Your task to perform on an android device: Open Google Maps Image 0: 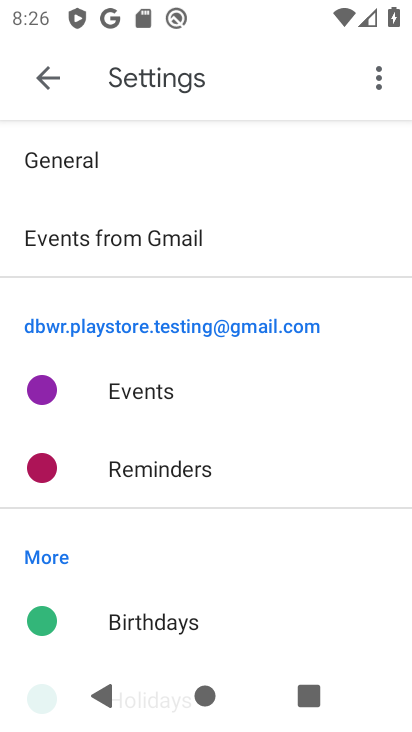
Step 0: press back button
Your task to perform on an android device: Open Google Maps Image 1: 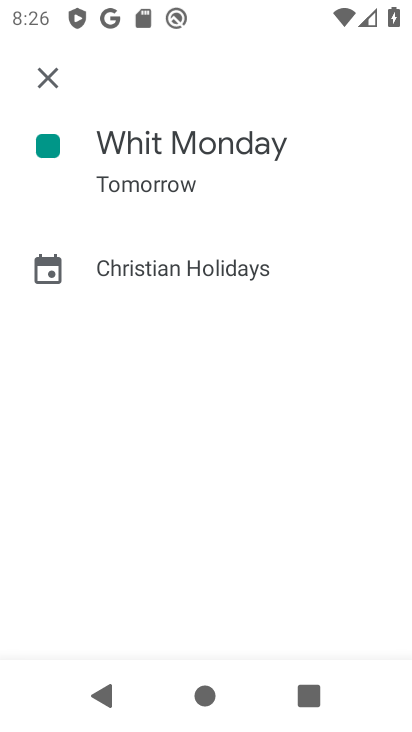
Step 1: click (59, 73)
Your task to perform on an android device: Open Google Maps Image 2: 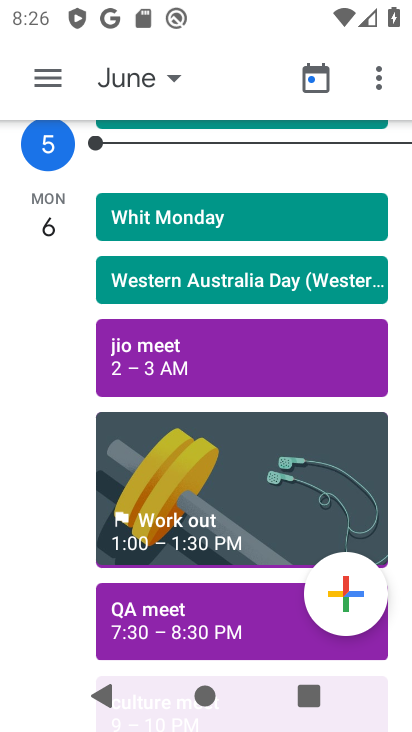
Step 2: press back button
Your task to perform on an android device: Open Google Maps Image 3: 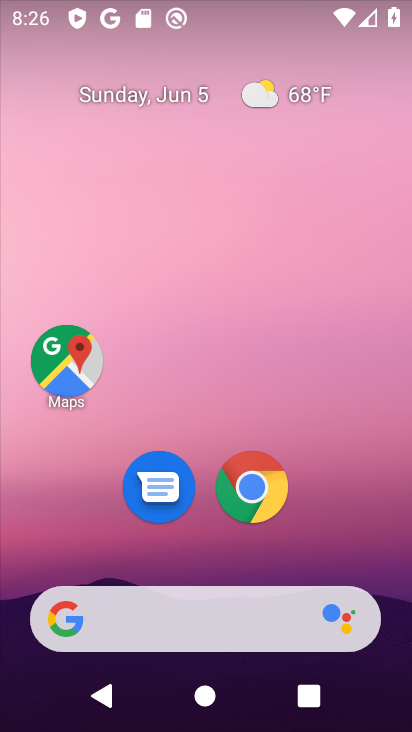
Step 3: click (92, 374)
Your task to perform on an android device: Open Google Maps Image 4: 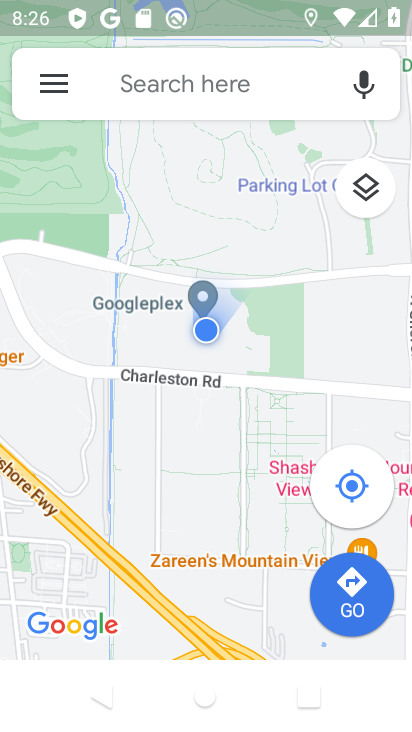
Step 4: task complete